Your task to perform on an android device: Go to sound settings Image 0: 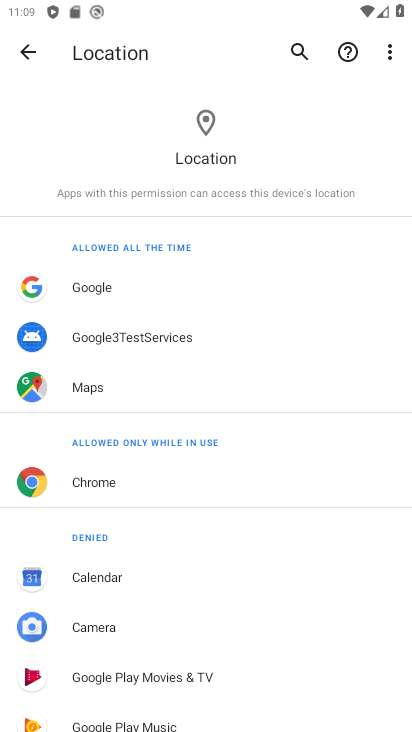
Step 0: press home button
Your task to perform on an android device: Go to sound settings Image 1: 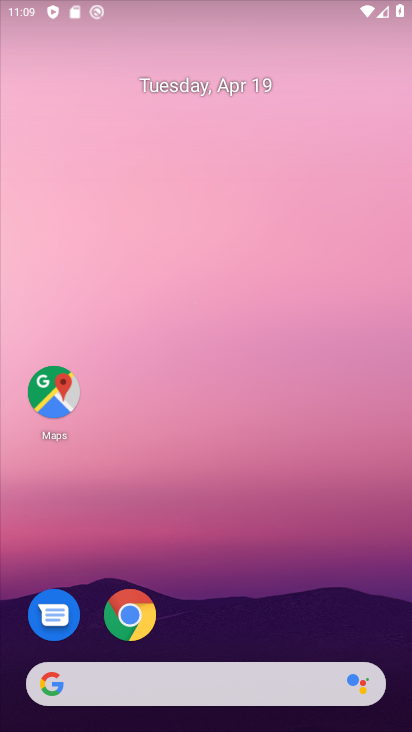
Step 1: drag from (293, 312) to (294, 7)
Your task to perform on an android device: Go to sound settings Image 2: 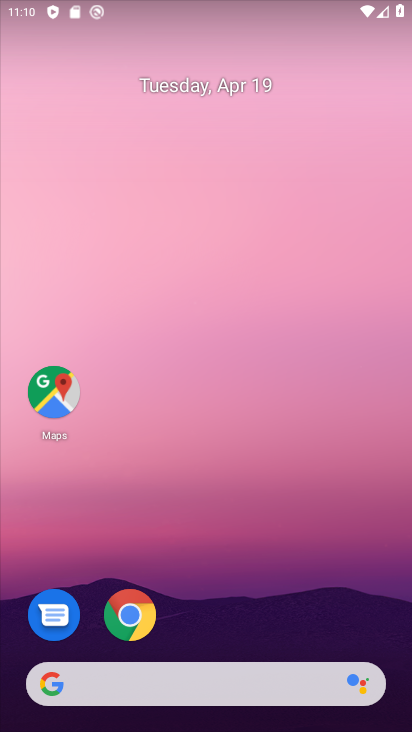
Step 2: drag from (193, 606) to (226, 14)
Your task to perform on an android device: Go to sound settings Image 3: 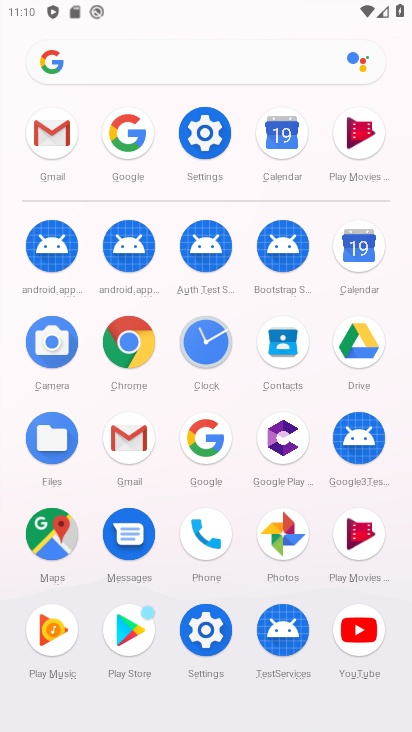
Step 3: click (201, 130)
Your task to perform on an android device: Go to sound settings Image 4: 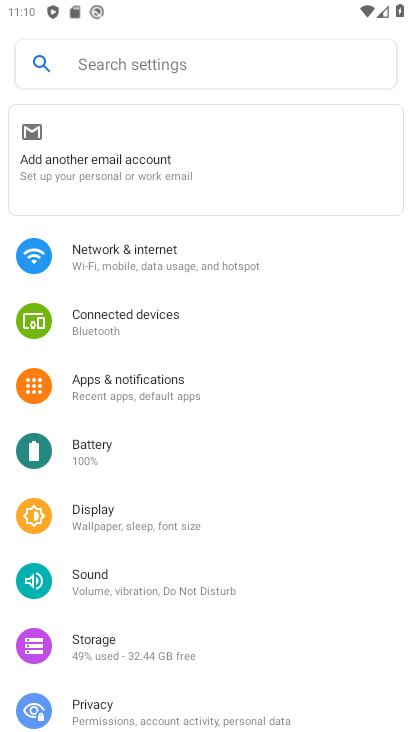
Step 4: click (104, 584)
Your task to perform on an android device: Go to sound settings Image 5: 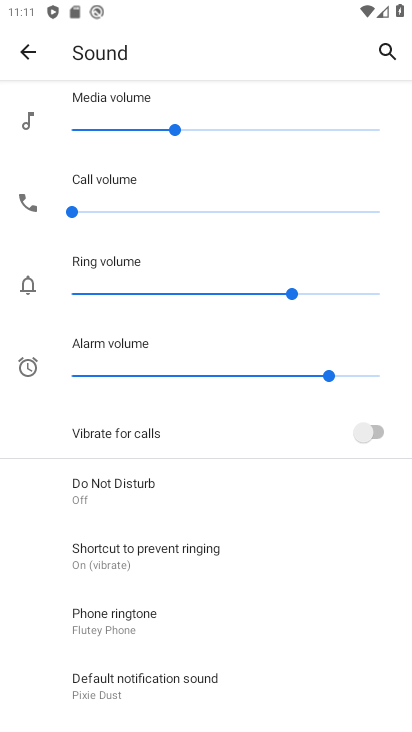
Step 5: task complete